Your task to perform on an android device: set the timer Image 0: 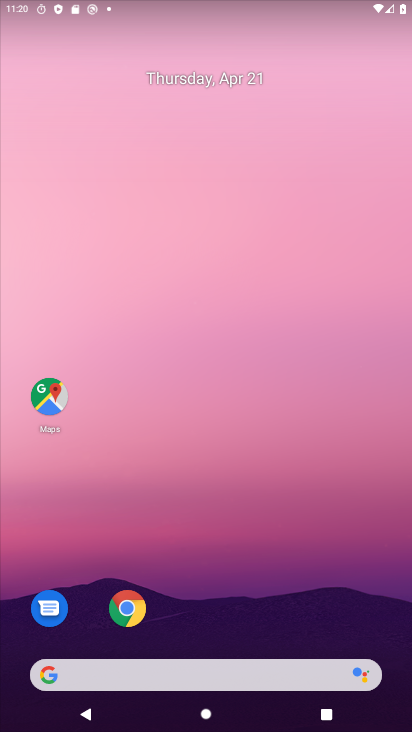
Step 0: drag from (160, 524) to (203, 214)
Your task to perform on an android device: set the timer Image 1: 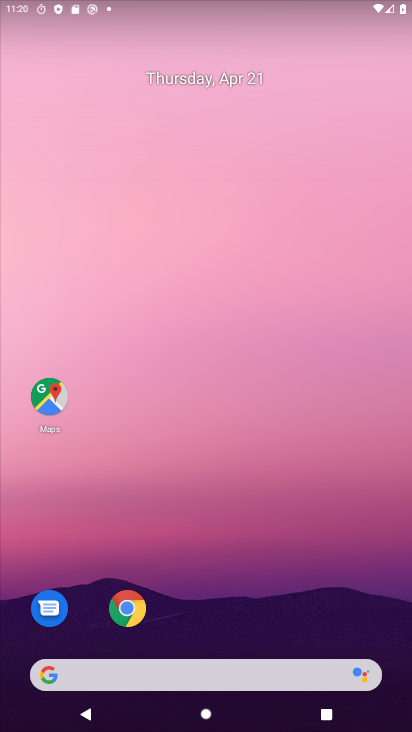
Step 1: drag from (150, 630) to (272, 1)
Your task to perform on an android device: set the timer Image 2: 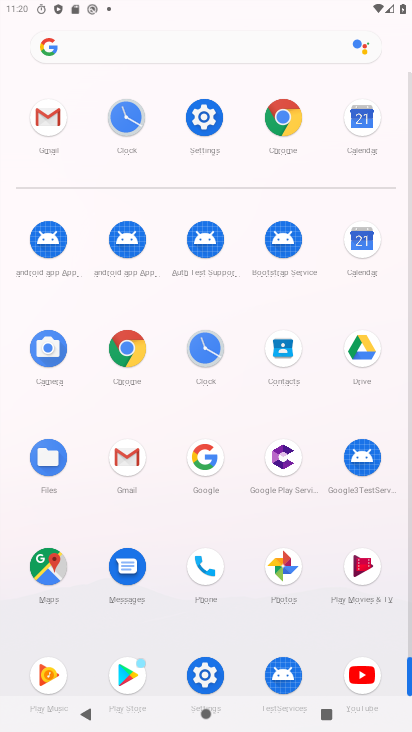
Step 2: click (123, 118)
Your task to perform on an android device: set the timer Image 3: 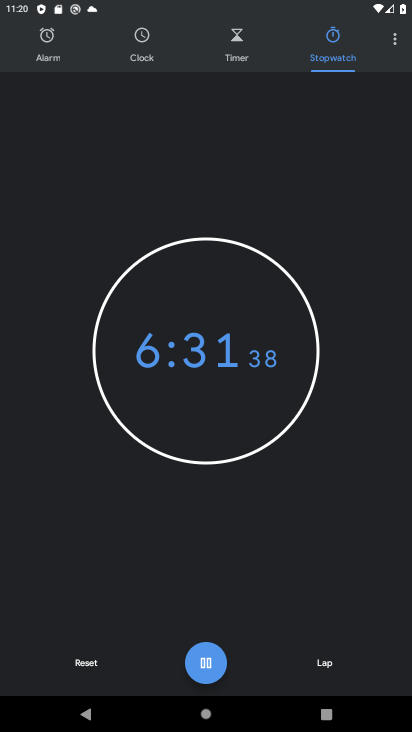
Step 3: click (232, 54)
Your task to perform on an android device: set the timer Image 4: 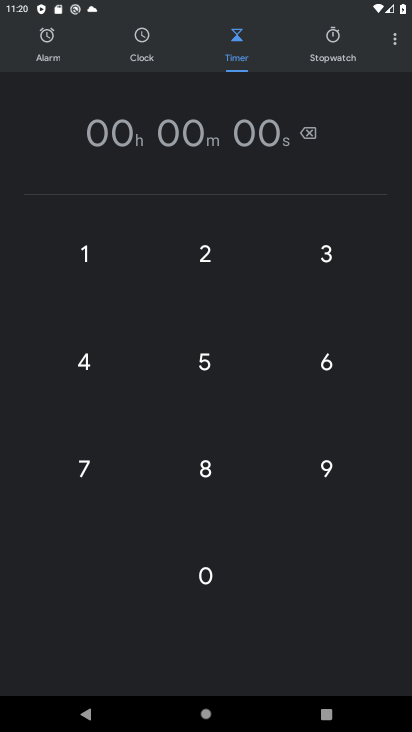
Step 4: click (214, 256)
Your task to perform on an android device: set the timer Image 5: 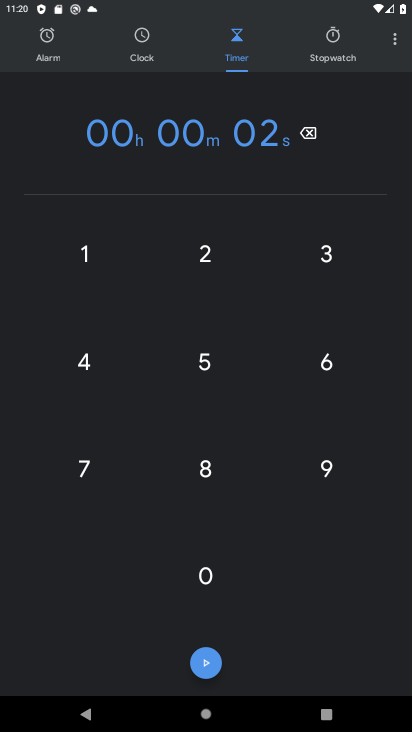
Step 5: click (231, 369)
Your task to perform on an android device: set the timer Image 6: 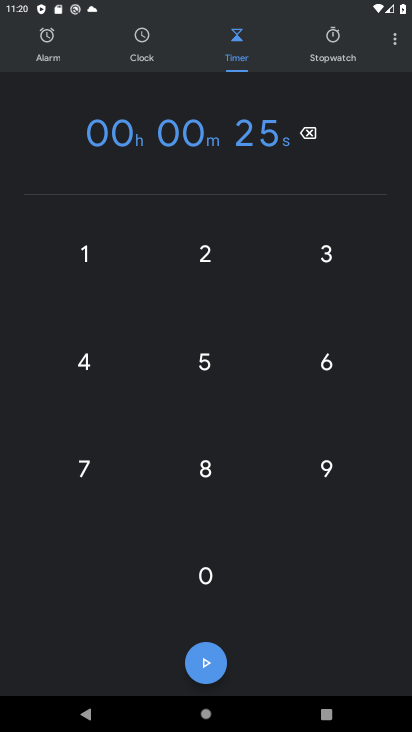
Step 6: click (210, 456)
Your task to perform on an android device: set the timer Image 7: 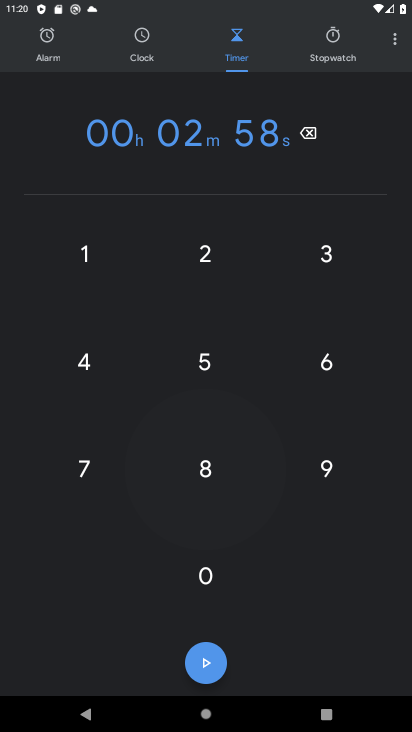
Step 7: click (314, 346)
Your task to perform on an android device: set the timer Image 8: 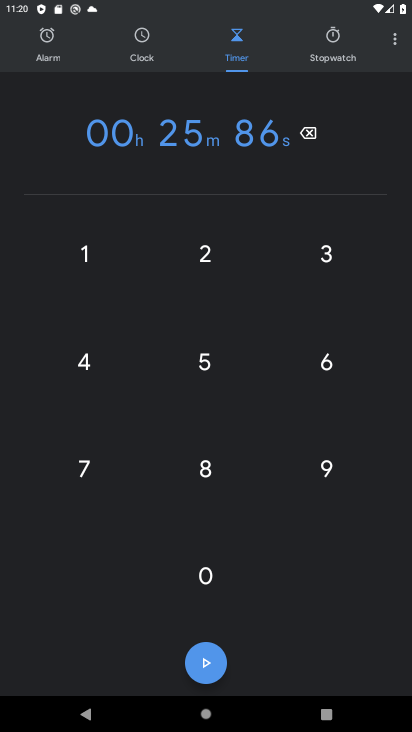
Step 8: click (106, 345)
Your task to perform on an android device: set the timer Image 9: 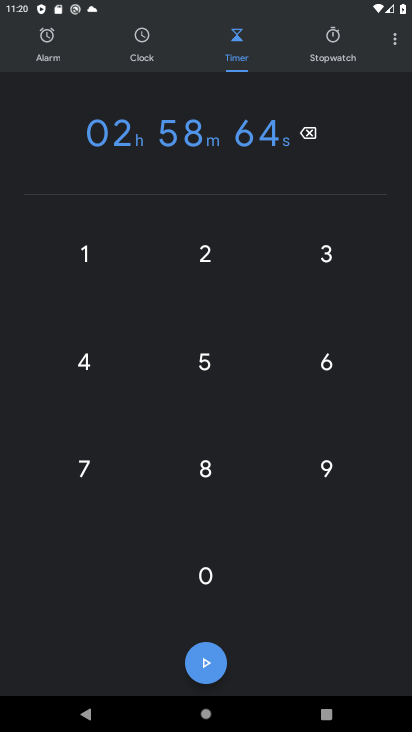
Step 9: click (226, 662)
Your task to perform on an android device: set the timer Image 10: 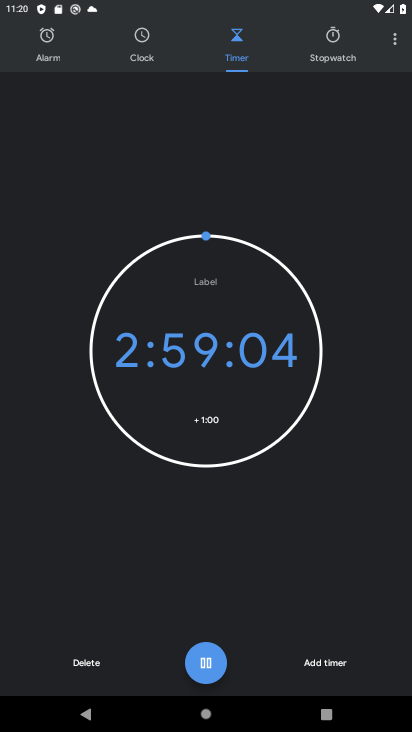
Step 10: task complete